Your task to perform on an android device: clear all cookies in the chrome app Image 0: 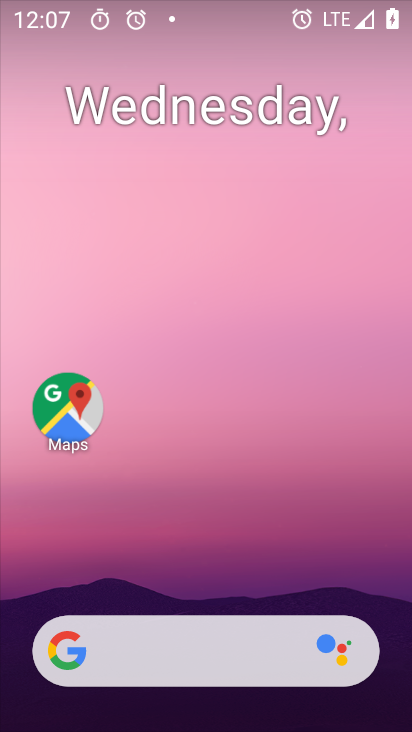
Step 0: drag from (197, 625) to (206, 261)
Your task to perform on an android device: clear all cookies in the chrome app Image 1: 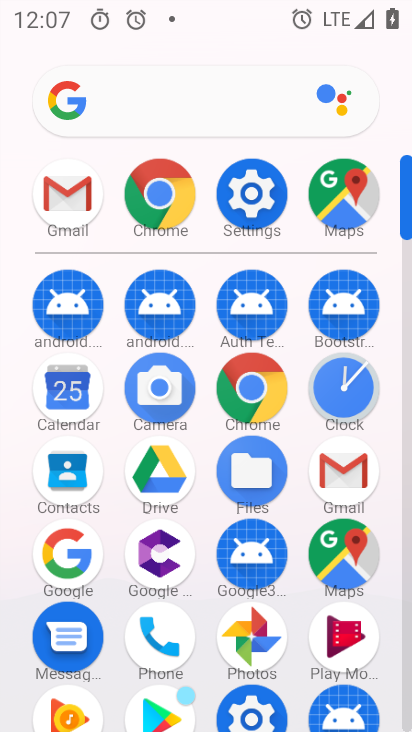
Step 1: click (248, 400)
Your task to perform on an android device: clear all cookies in the chrome app Image 2: 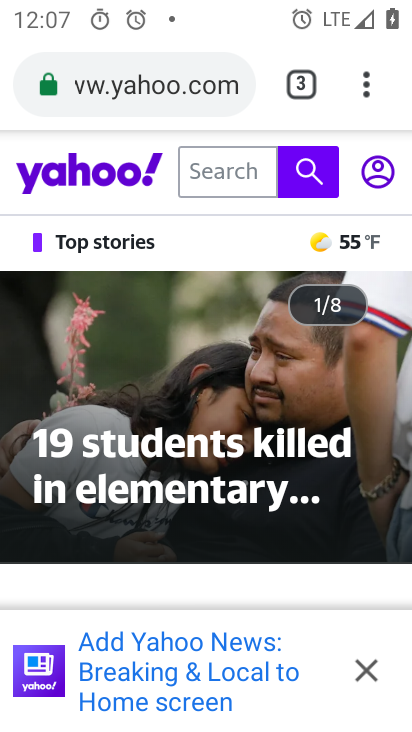
Step 2: drag from (371, 77) to (167, 466)
Your task to perform on an android device: clear all cookies in the chrome app Image 3: 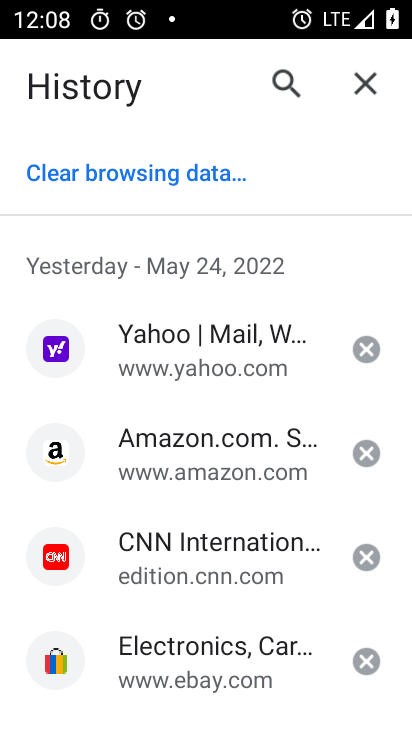
Step 3: click (185, 177)
Your task to perform on an android device: clear all cookies in the chrome app Image 4: 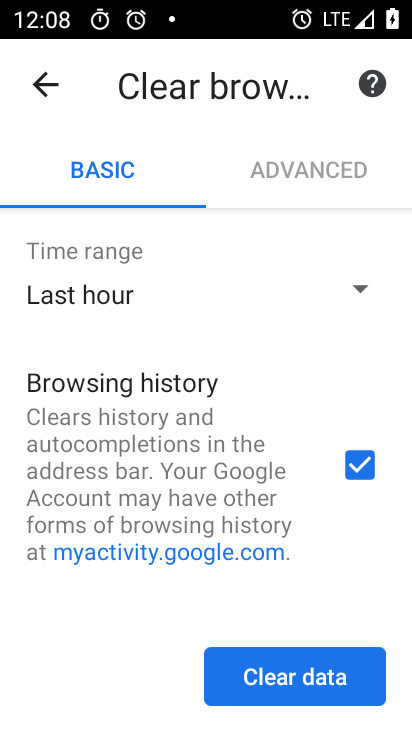
Step 4: drag from (275, 504) to (303, 193)
Your task to perform on an android device: clear all cookies in the chrome app Image 5: 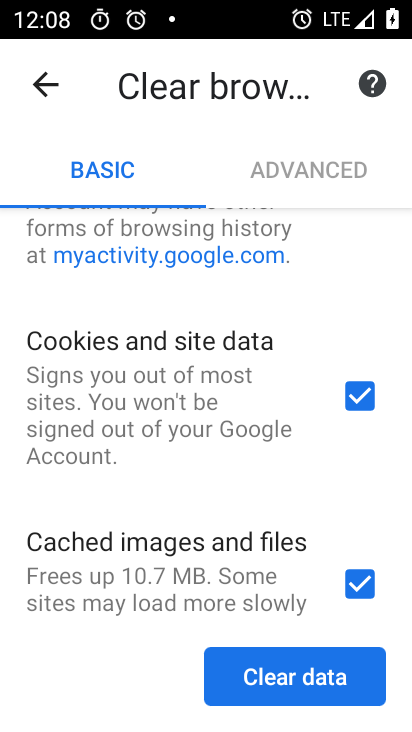
Step 5: click (340, 711)
Your task to perform on an android device: clear all cookies in the chrome app Image 6: 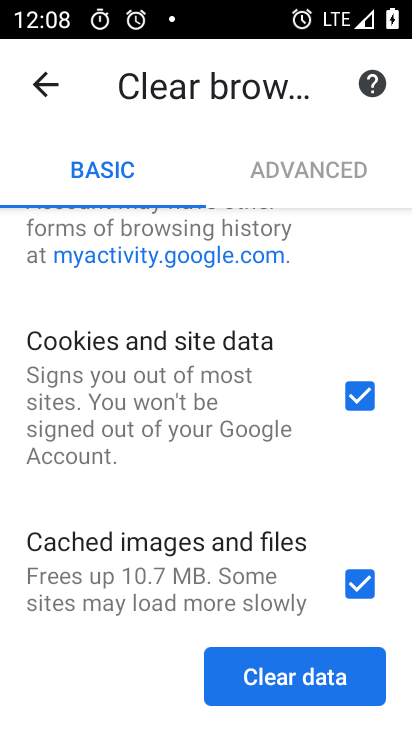
Step 6: click (287, 695)
Your task to perform on an android device: clear all cookies in the chrome app Image 7: 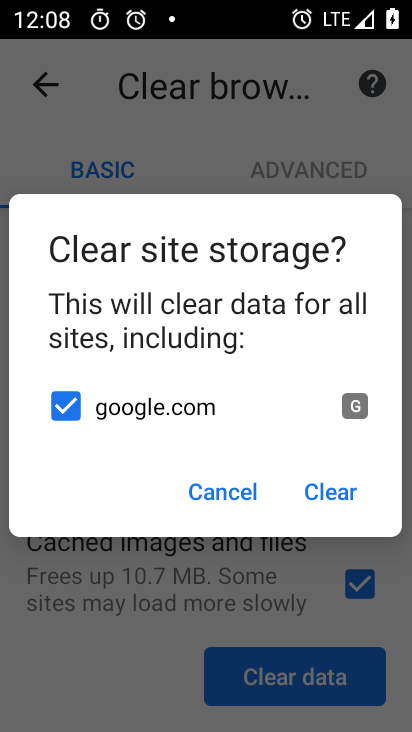
Step 7: click (335, 508)
Your task to perform on an android device: clear all cookies in the chrome app Image 8: 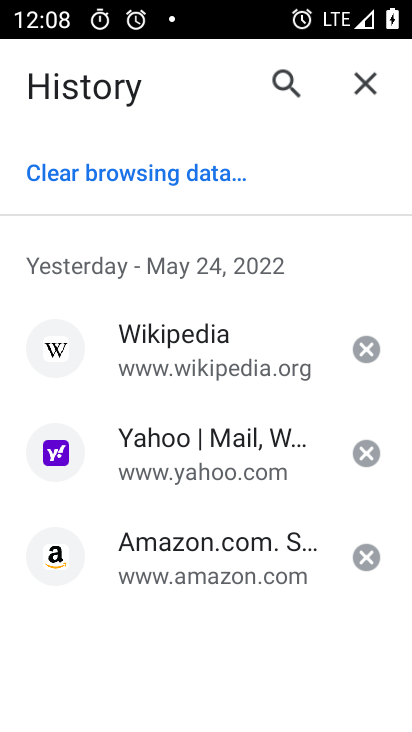
Step 8: task complete